Your task to perform on an android device: turn vacation reply on in the gmail app Image 0: 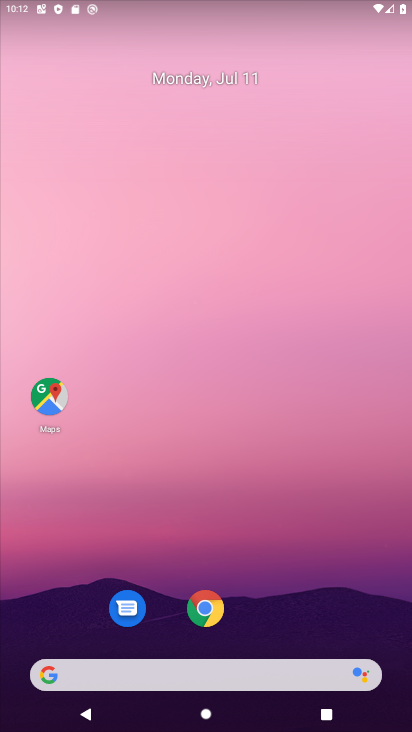
Step 0: drag from (14, 695) to (207, 14)
Your task to perform on an android device: turn vacation reply on in the gmail app Image 1: 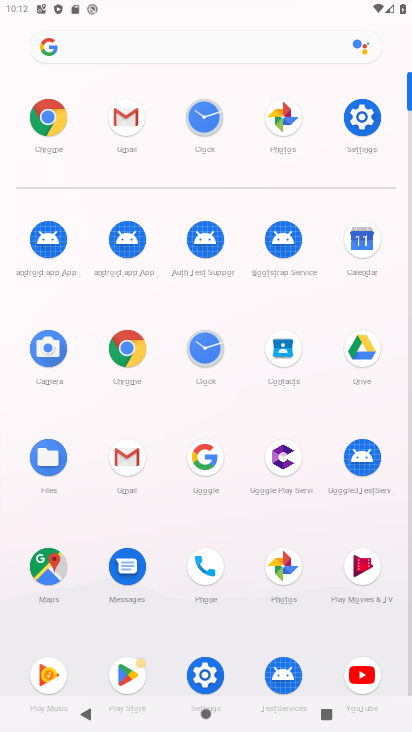
Step 1: click (125, 461)
Your task to perform on an android device: turn vacation reply on in the gmail app Image 2: 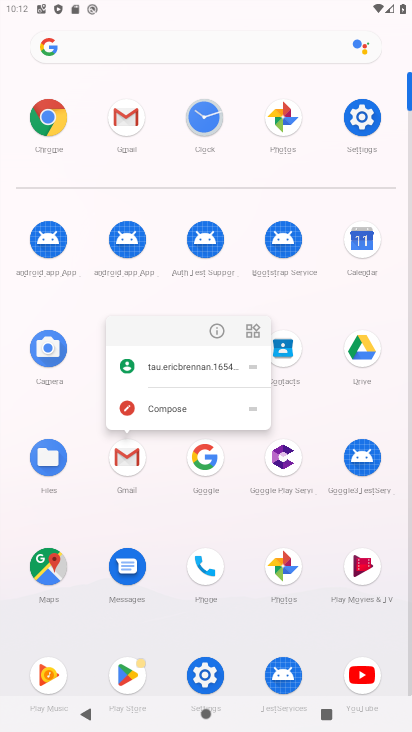
Step 2: click (125, 451)
Your task to perform on an android device: turn vacation reply on in the gmail app Image 3: 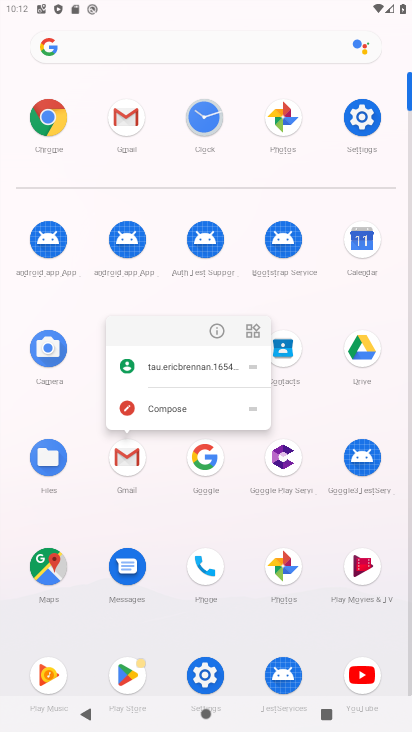
Step 3: click (98, 457)
Your task to perform on an android device: turn vacation reply on in the gmail app Image 4: 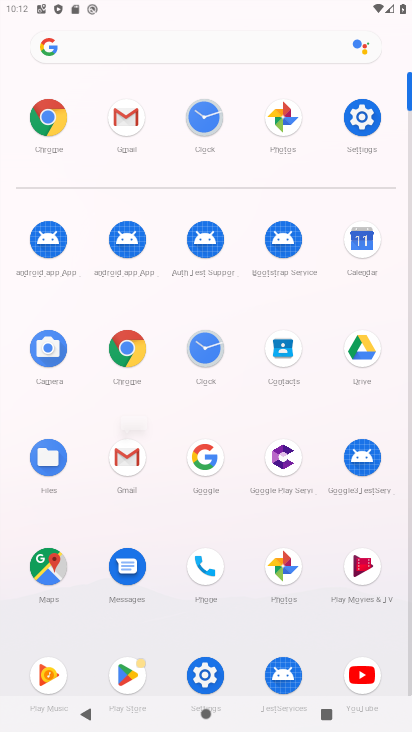
Step 4: click (98, 457)
Your task to perform on an android device: turn vacation reply on in the gmail app Image 5: 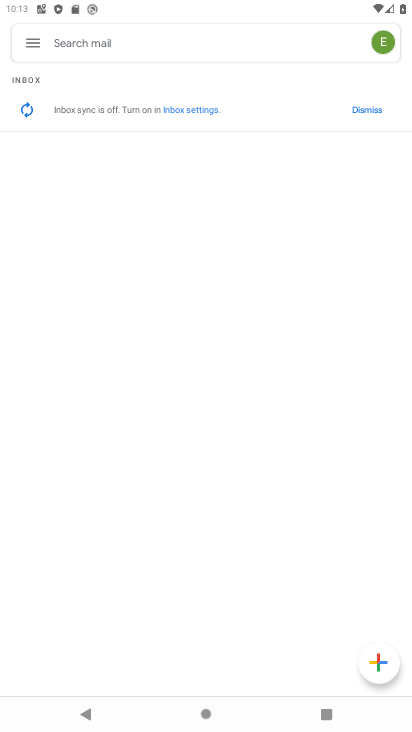
Step 5: click (32, 29)
Your task to perform on an android device: turn vacation reply on in the gmail app Image 6: 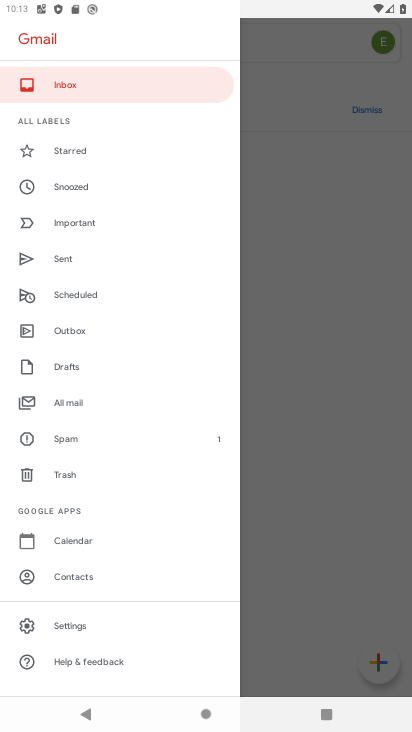
Step 6: click (84, 91)
Your task to perform on an android device: turn vacation reply on in the gmail app Image 7: 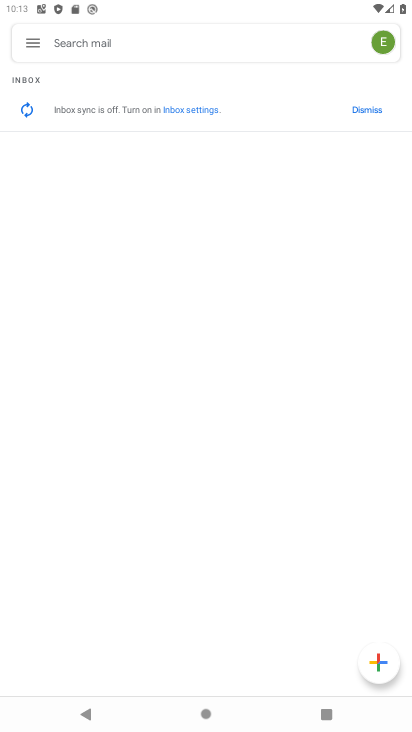
Step 7: task complete